Your task to perform on an android device: visit the assistant section in the google photos Image 0: 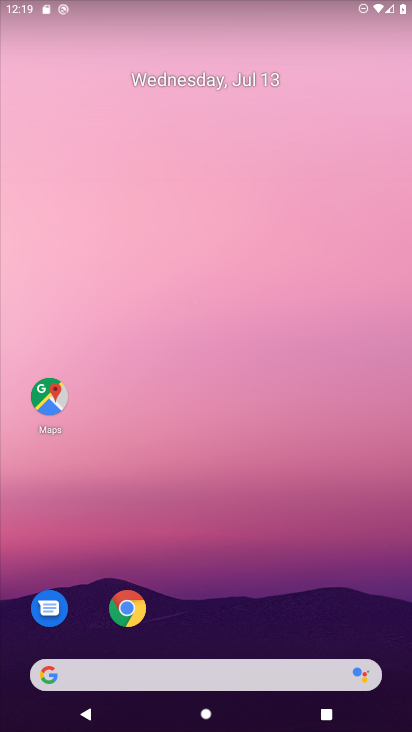
Step 0: drag from (217, 464) to (206, 143)
Your task to perform on an android device: visit the assistant section in the google photos Image 1: 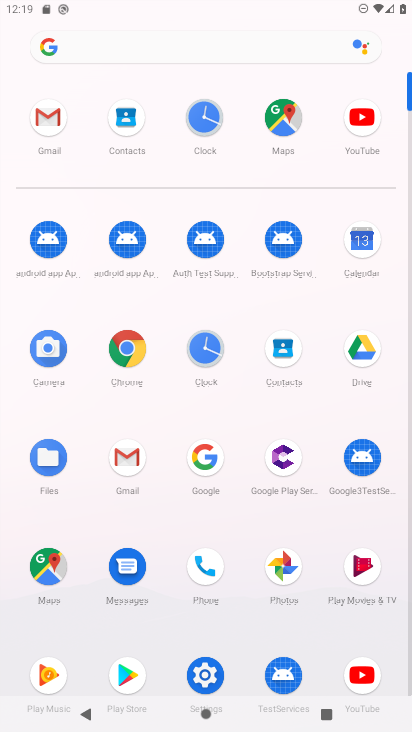
Step 1: click (277, 552)
Your task to perform on an android device: visit the assistant section in the google photos Image 2: 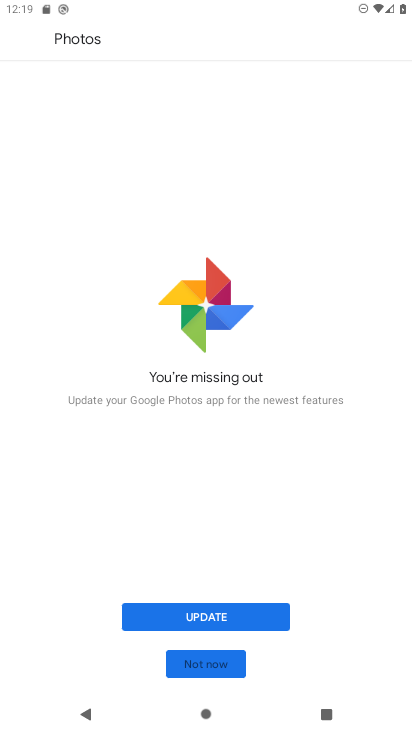
Step 2: click (179, 667)
Your task to perform on an android device: visit the assistant section in the google photos Image 3: 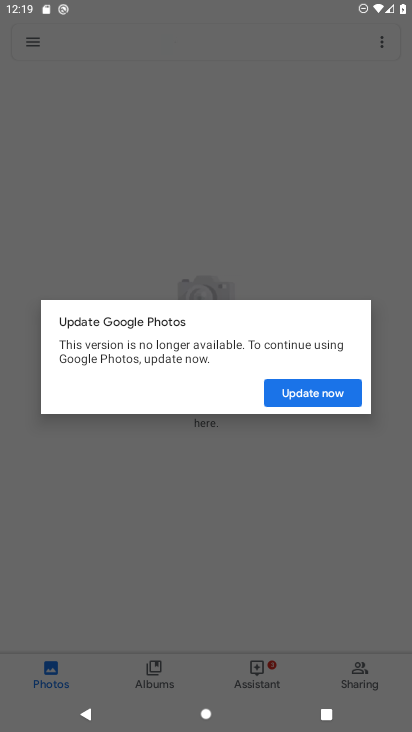
Step 3: click (292, 380)
Your task to perform on an android device: visit the assistant section in the google photos Image 4: 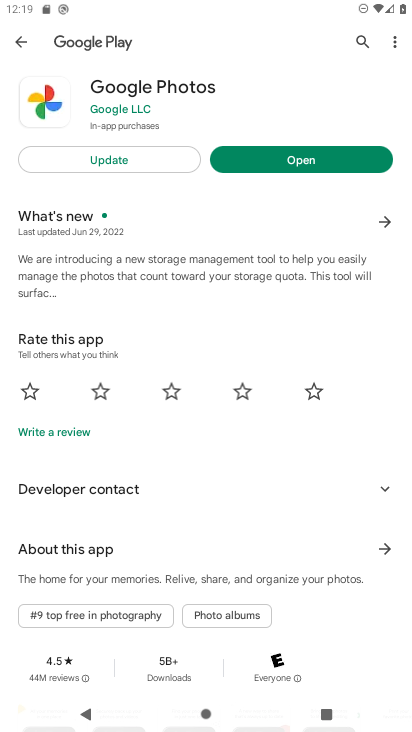
Step 4: click (303, 153)
Your task to perform on an android device: visit the assistant section in the google photos Image 5: 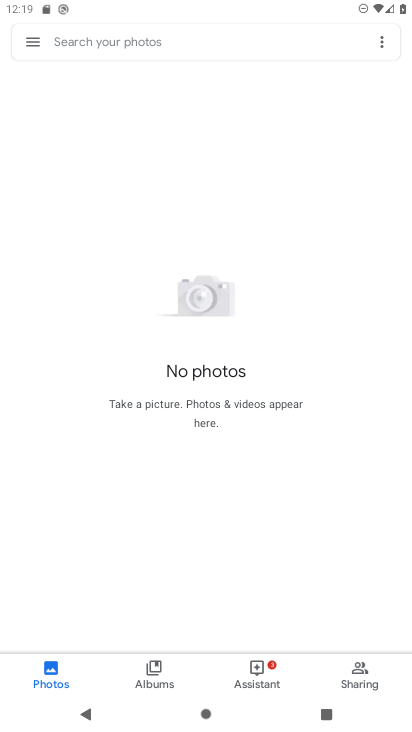
Step 5: click (245, 659)
Your task to perform on an android device: visit the assistant section in the google photos Image 6: 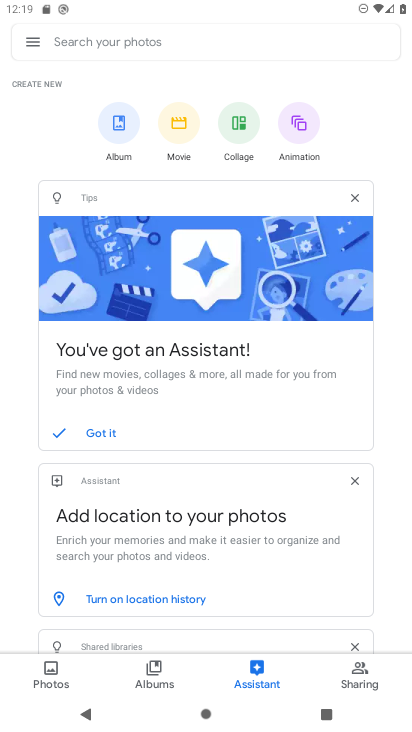
Step 6: task complete